Your task to perform on an android device: Turn off the flashlight Image 0: 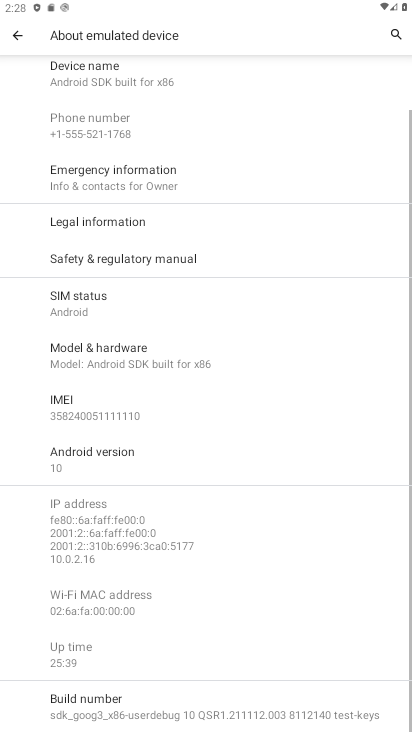
Step 0: press home button
Your task to perform on an android device: Turn off the flashlight Image 1: 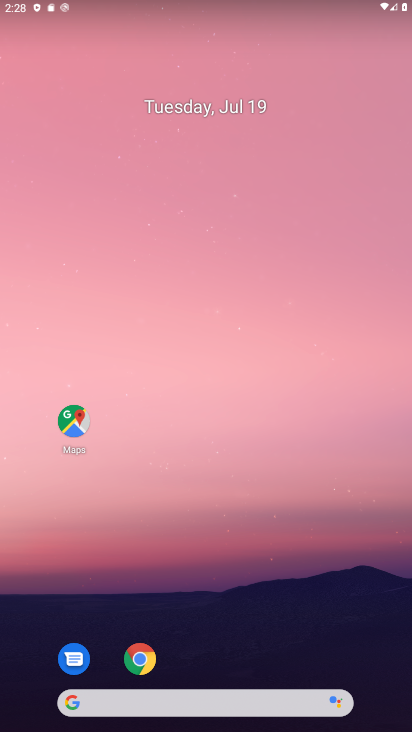
Step 1: drag from (157, 695) to (247, 234)
Your task to perform on an android device: Turn off the flashlight Image 2: 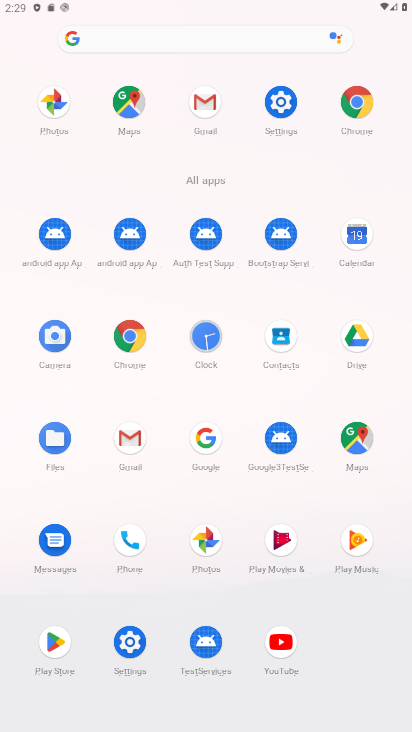
Step 2: click (130, 641)
Your task to perform on an android device: Turn off the flashlight Image 3: 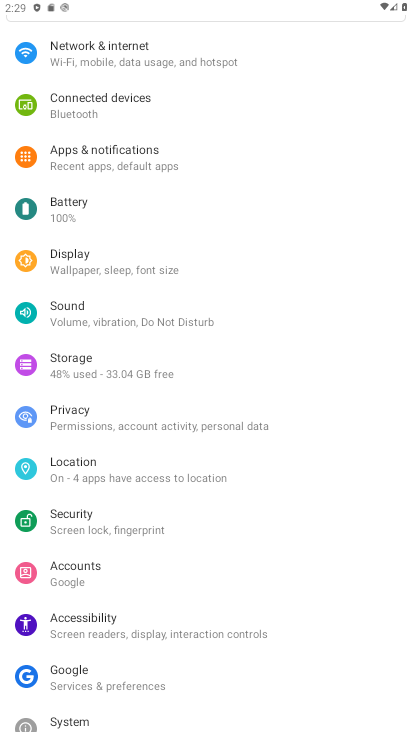
Step 3: click (90, 272)
Your task to perform on an android device: Turn off the flashlight Image 4: 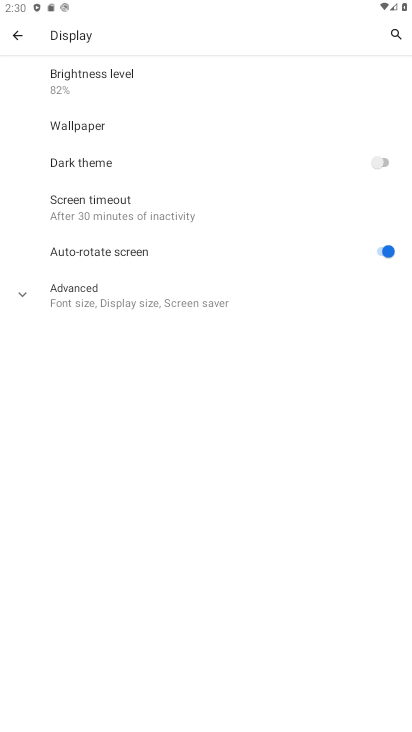
Step 4: click (163, 246)
Your task to perform on an android device: Turn off the flashlight Image 5: 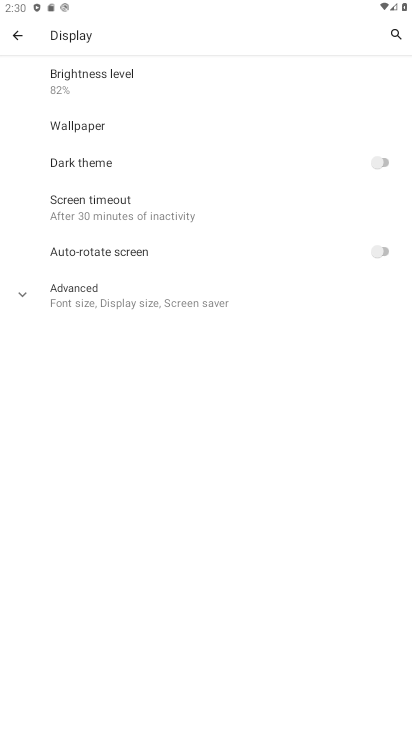
Step 5: click (140, 221)
Your task to perform on an android device: Turn off the flashlight Image 6: 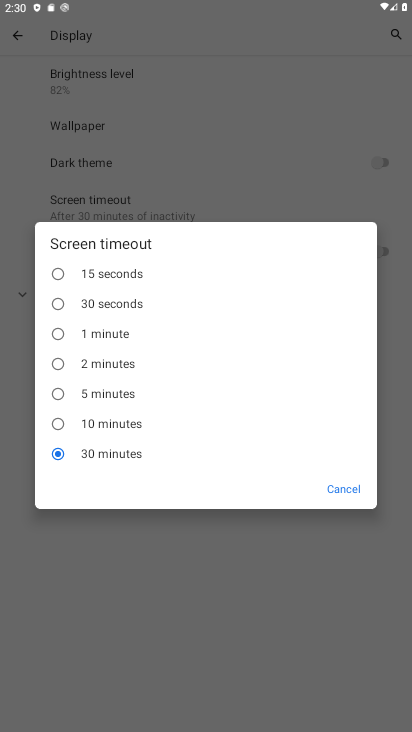
Step 6: click (344, 481)
Your task to perform on an android device: Turn off the flashlight Image 7: 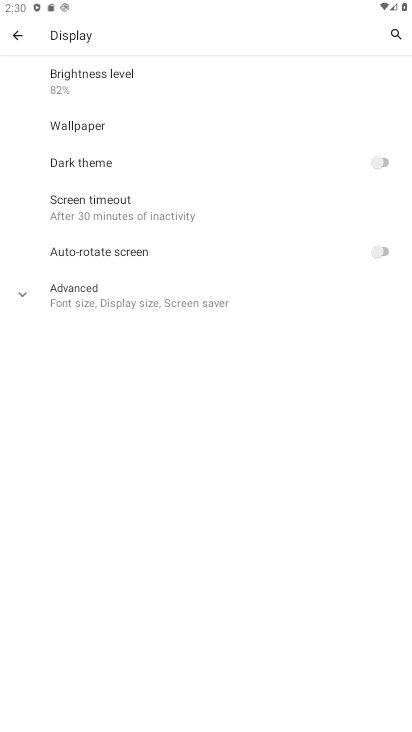
Step 7: click (86, 91)
Your task to perform on an android device: Turn off the flashlight Image 8: 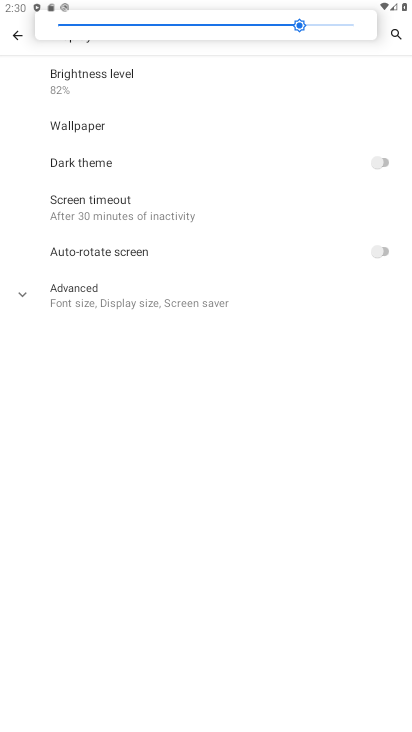
Step 8: click (60, 293)
Your task to perform on an android device: Turn off the flashlight Image 9: 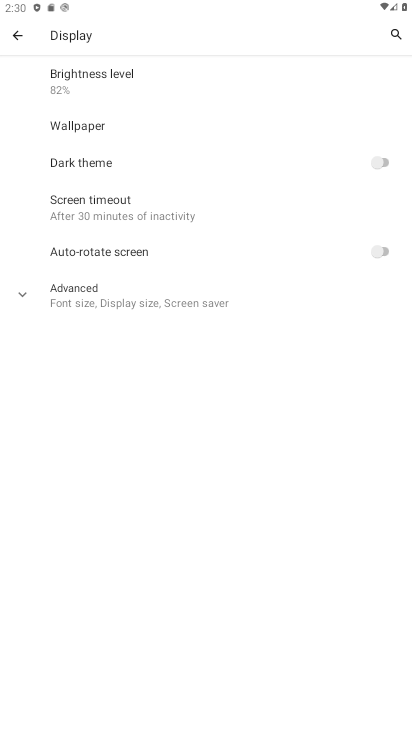
Step 9: click (60, 293)
Your task to perform on an android device: Turn off the flashlight Image 10: 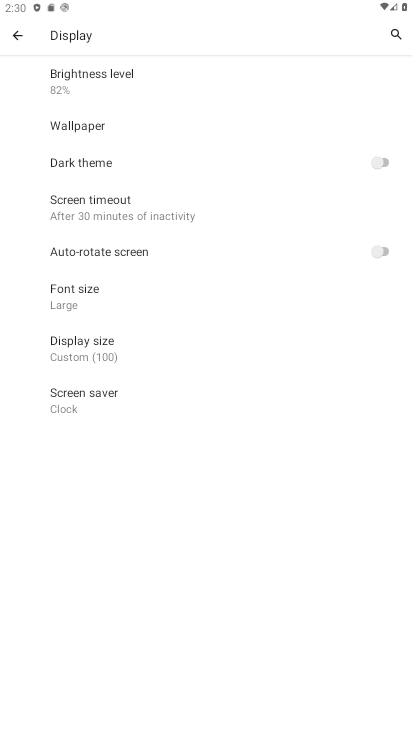
Step 10: task complete